Your task to perform on an android device: turn on sleep mode Image 0: 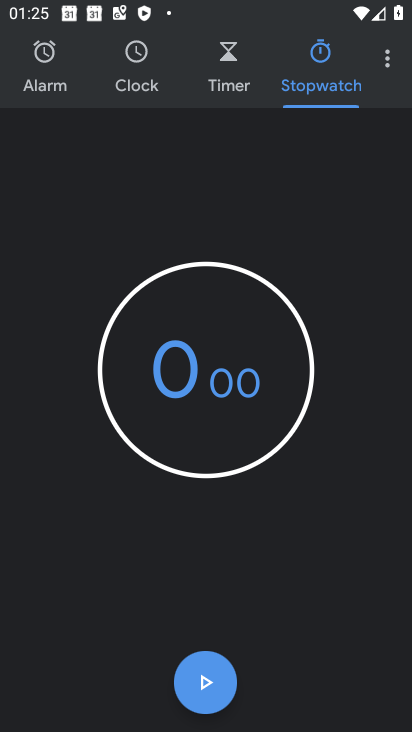
Step 0: press home button
Your task to perform on an android device: turn on sleep mode Image 1: 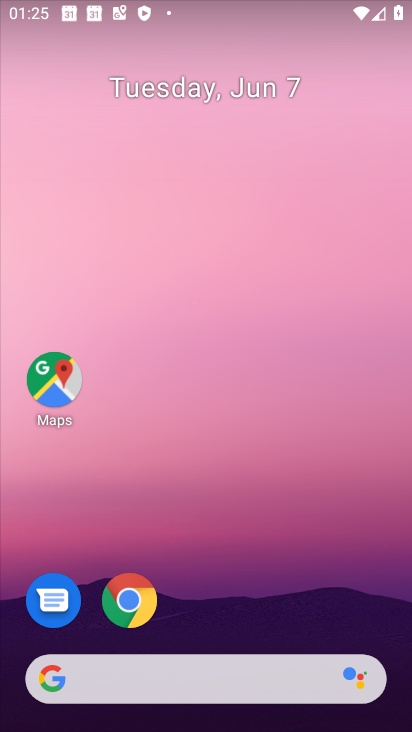
Step 1: drag from (264, 717) to (259, 159)
Your task to perform on an android device: turn on sleep mode Image 2: 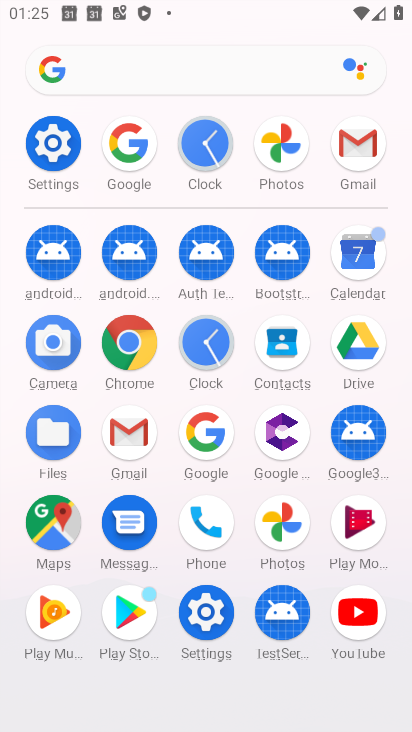
Step 2: click (48, 144)
Your task to perform on an android device: turn on sleep mode Image 3: 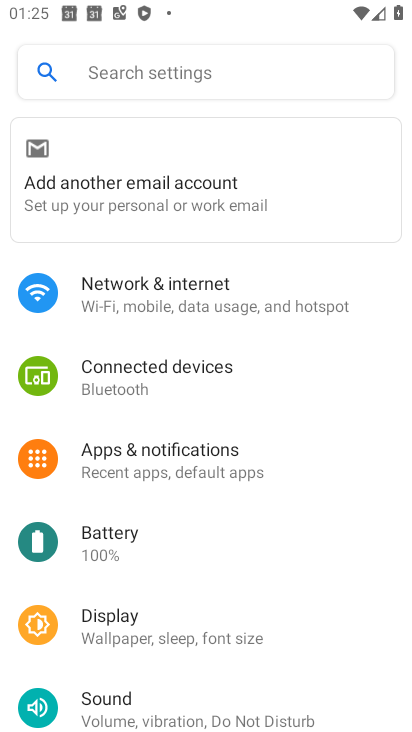
Step 3: task complete